Your task to perform on an android device: Go to CNN.com Image 0: 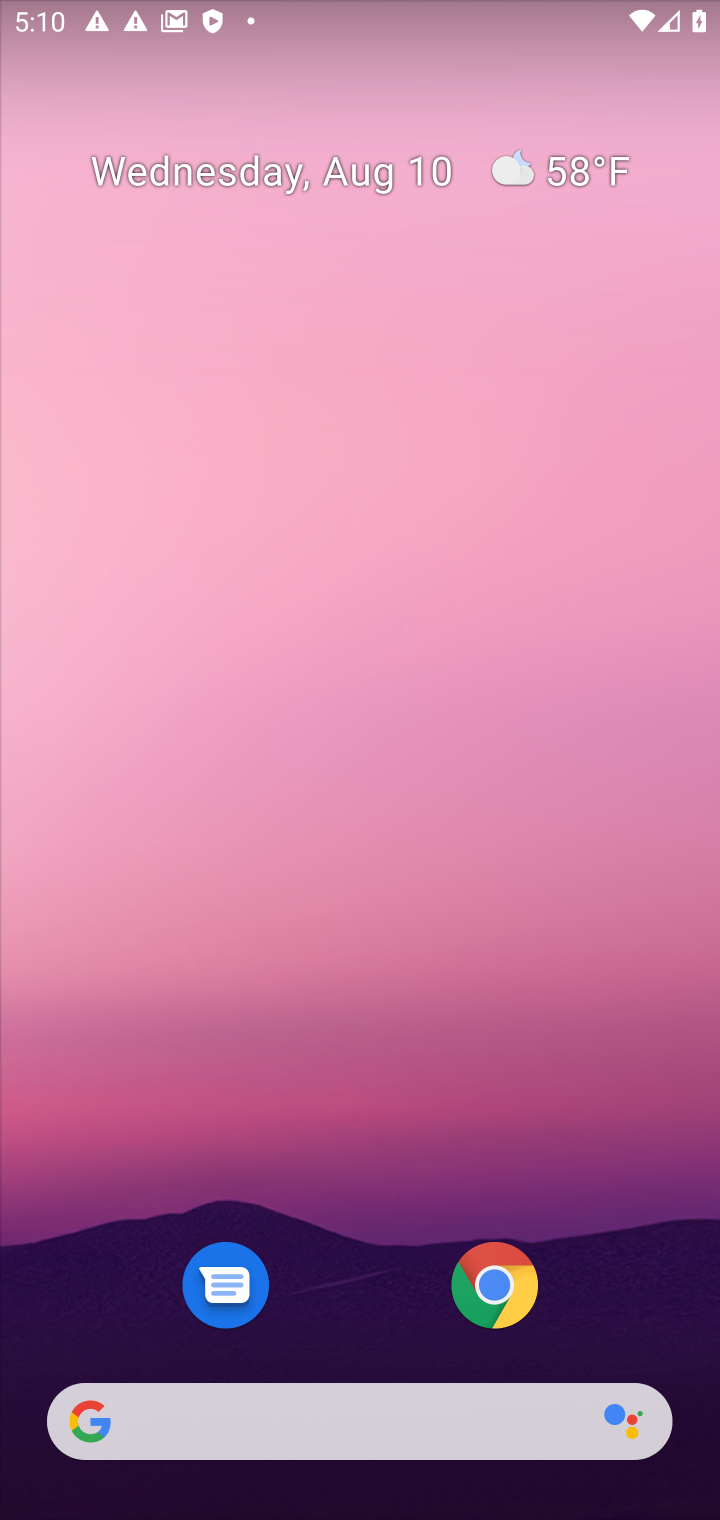
Step 0: press home button
Your task to perform on an android device: Go to CNN.com Image 1: 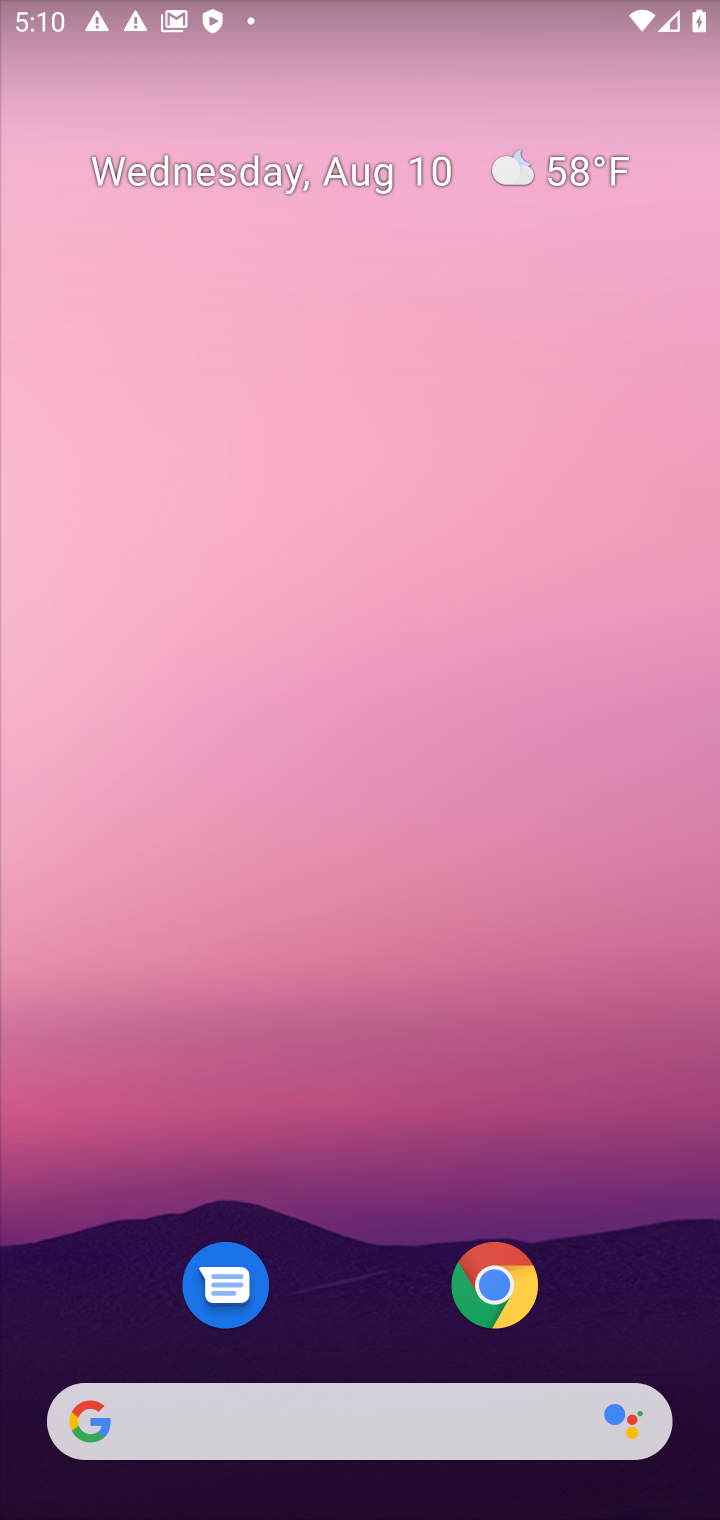
Step 1: click (504, 1284)
Your task to perform on an android device: Go to CNN.com Image 2: 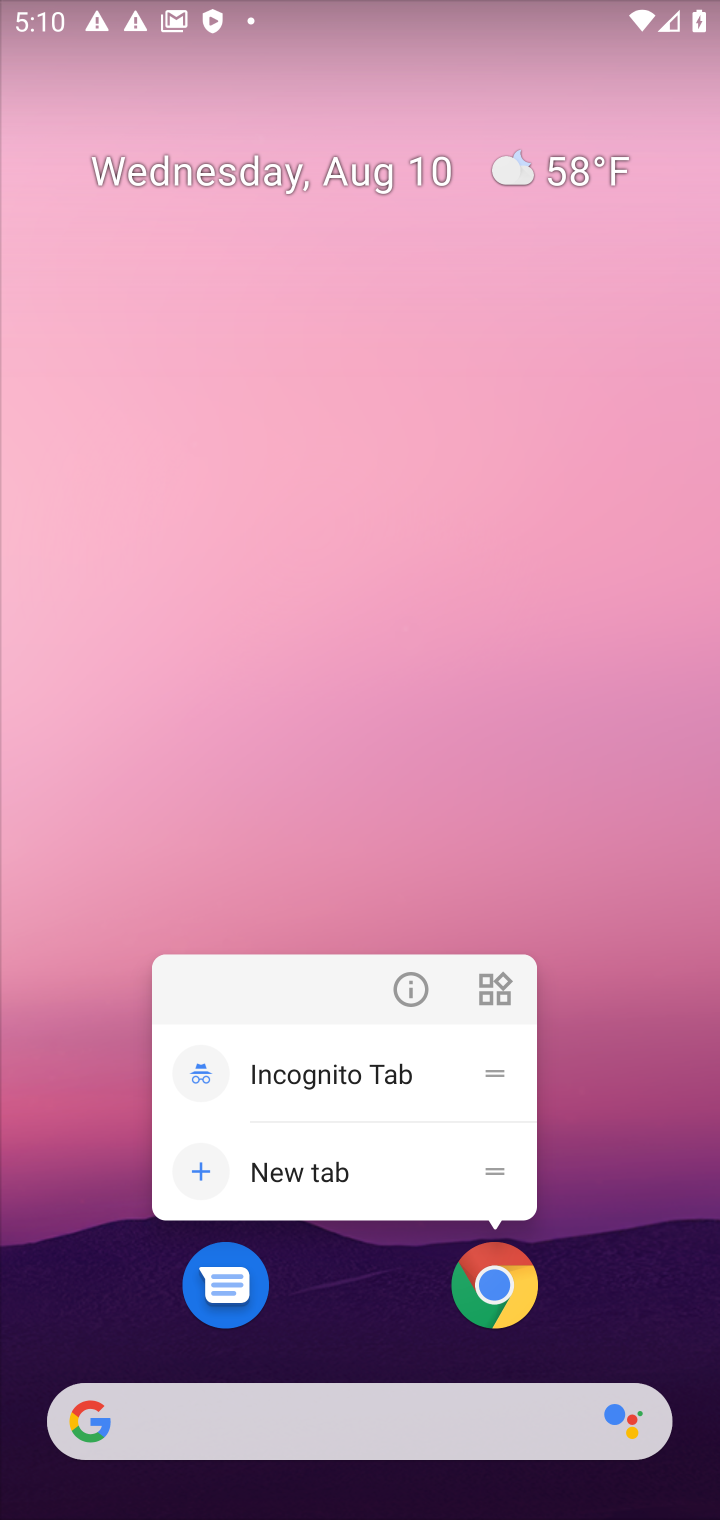
Step 2: click (498, 1284)
Your task to perform on an android device: Go to CNN.com Image 3: 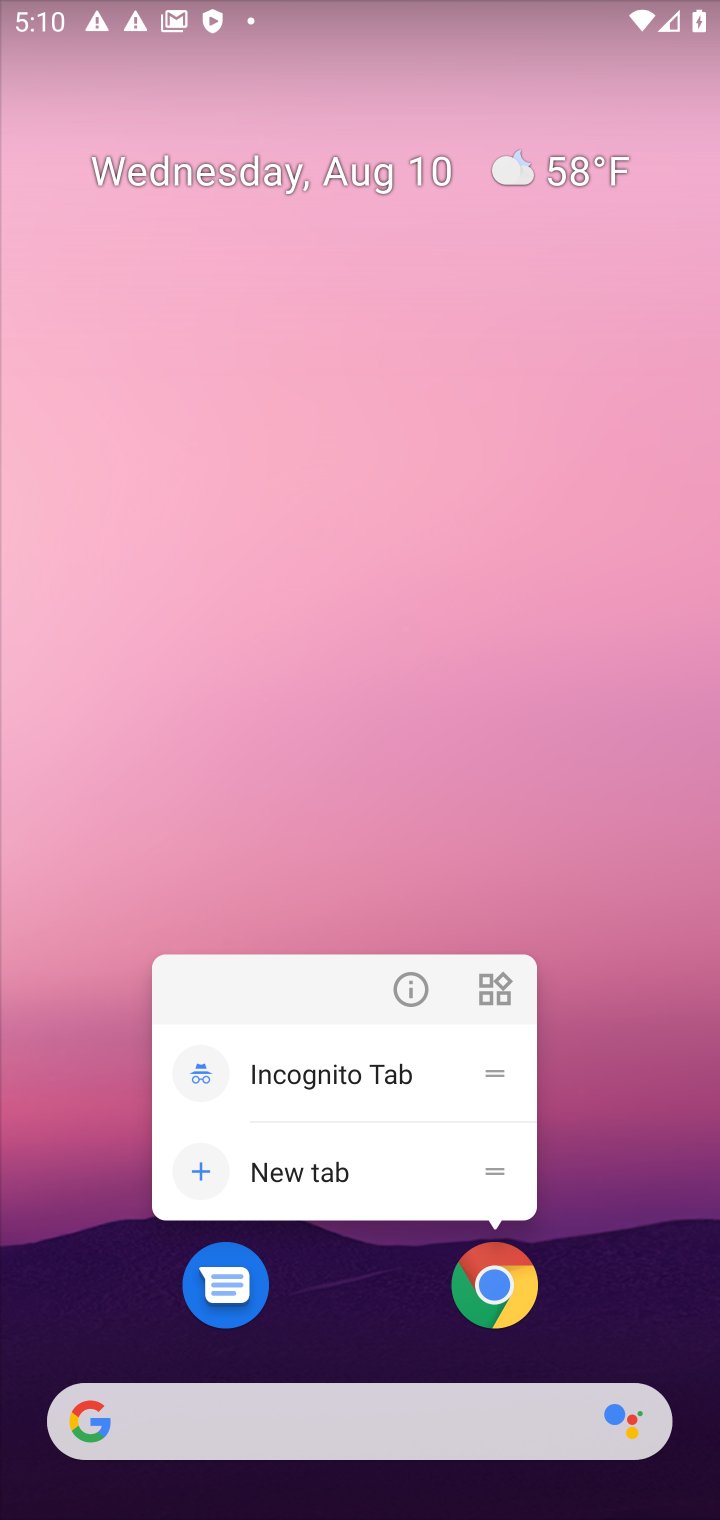
Step 3: click (498, 1284)
Your task to perform on an android device: Go to CNN.com Image 4: 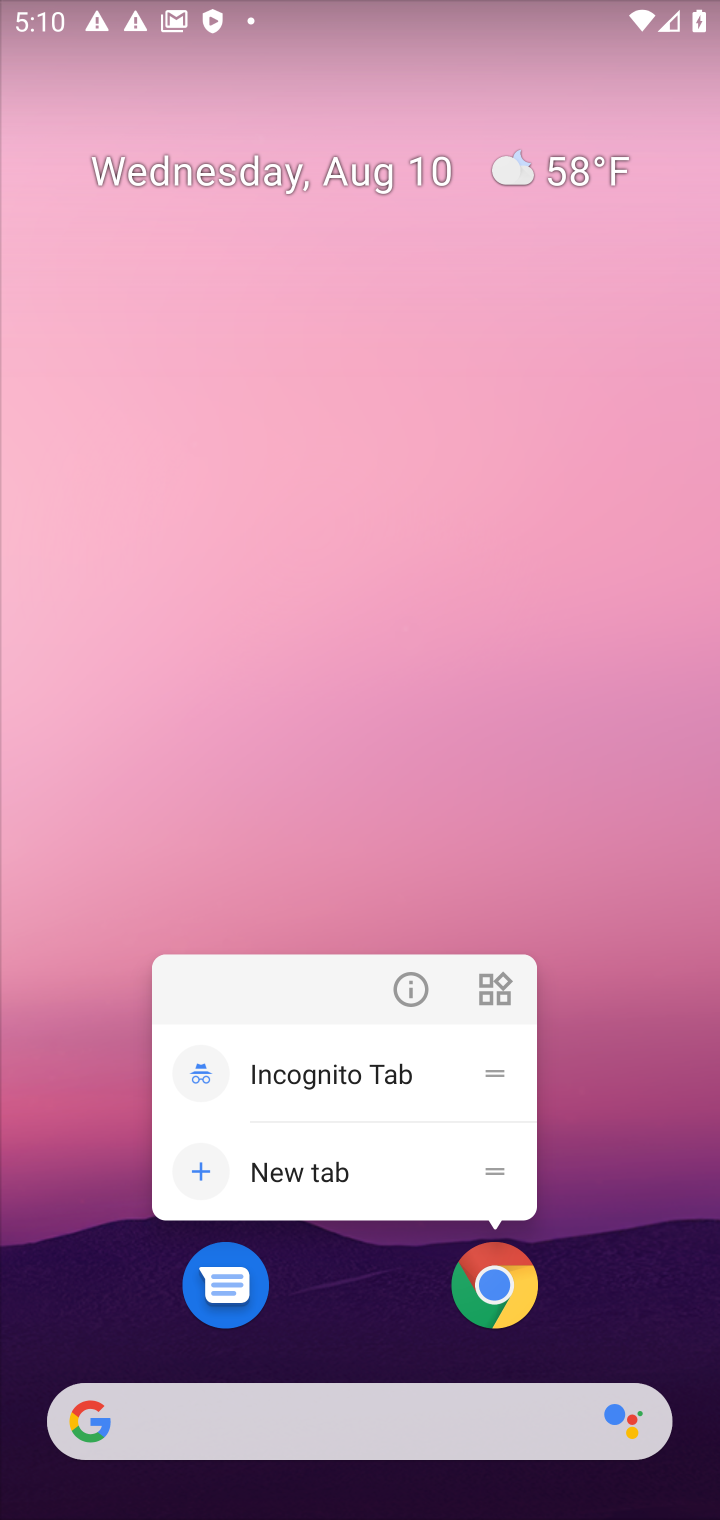
Step 4: click (460, 1281)
Your task to perform on an android device: Go to CNN.com Image 5: 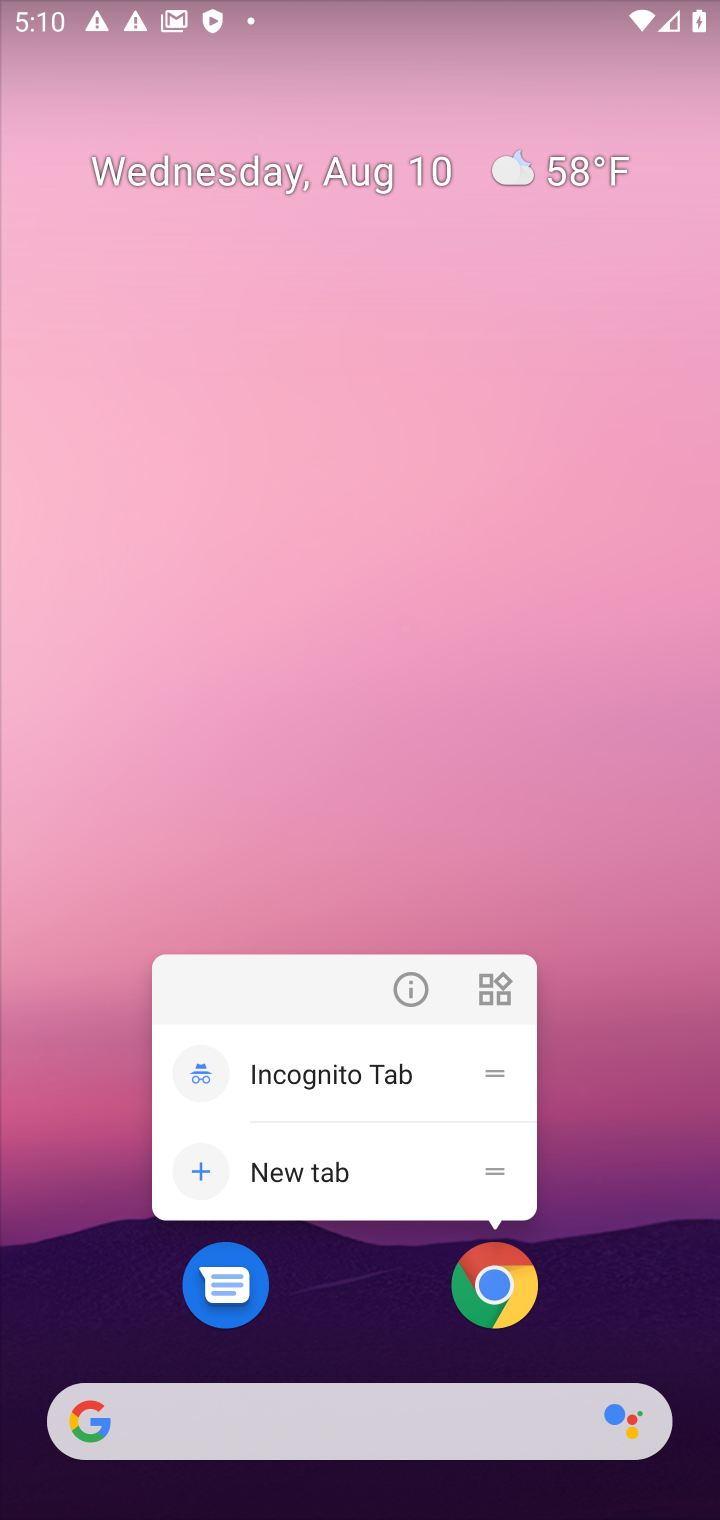
Step 5: click (460, 1281)
Your task to perform on an android device: Go to CNN.com Image 6: 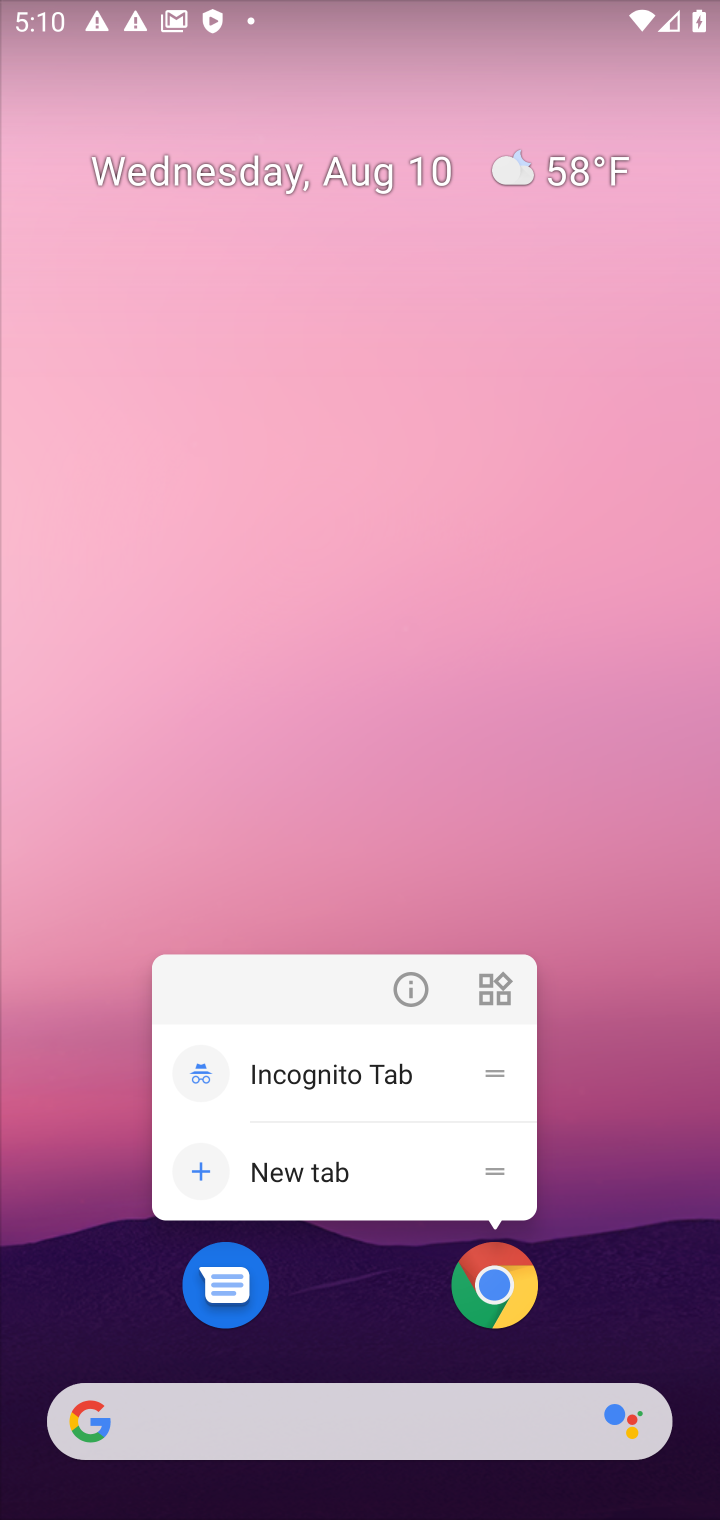
Step 6: click (493, 1281)
Your task to perform on an android device: Go to CNN.com Image 7: 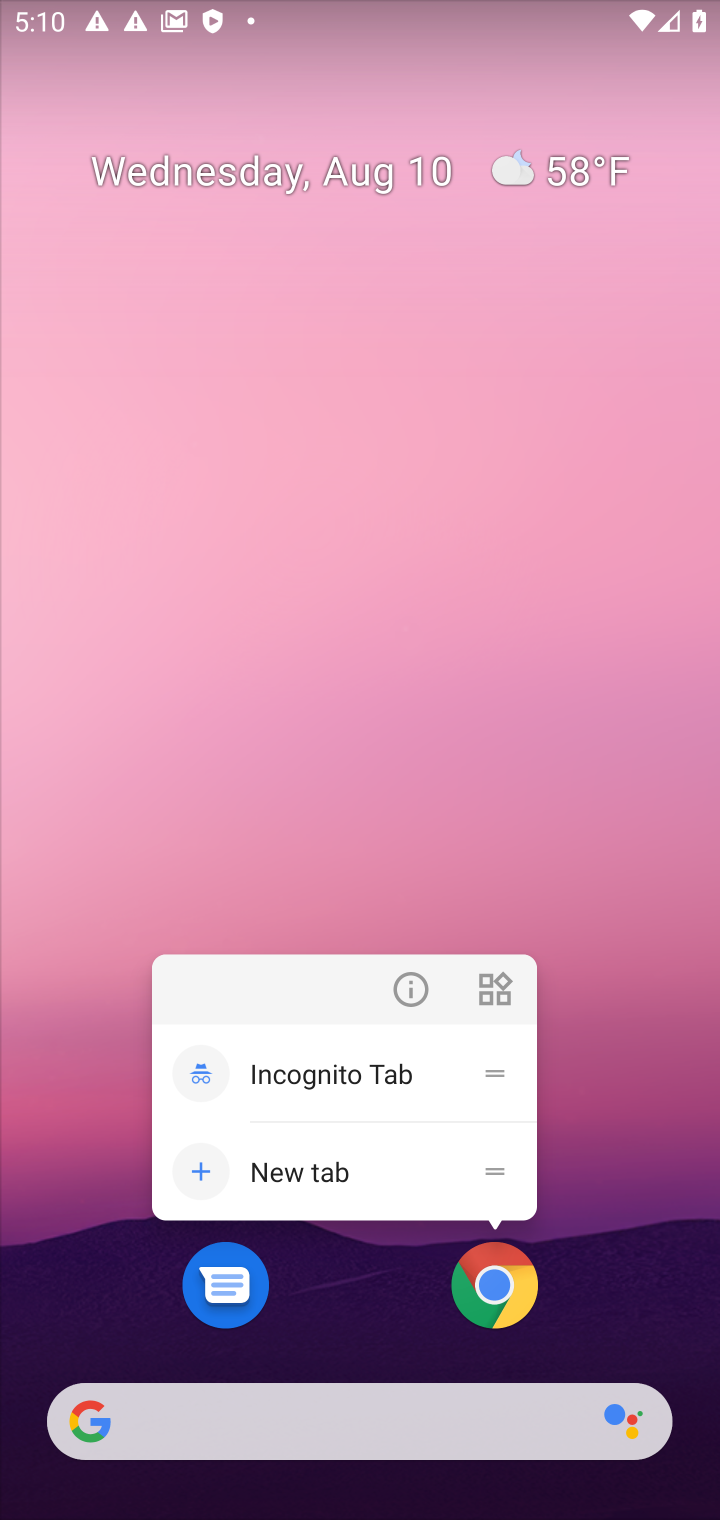
Step 7: click (493, 1281)
Your task to perform on an android device: Go to CNN.com Image 8: 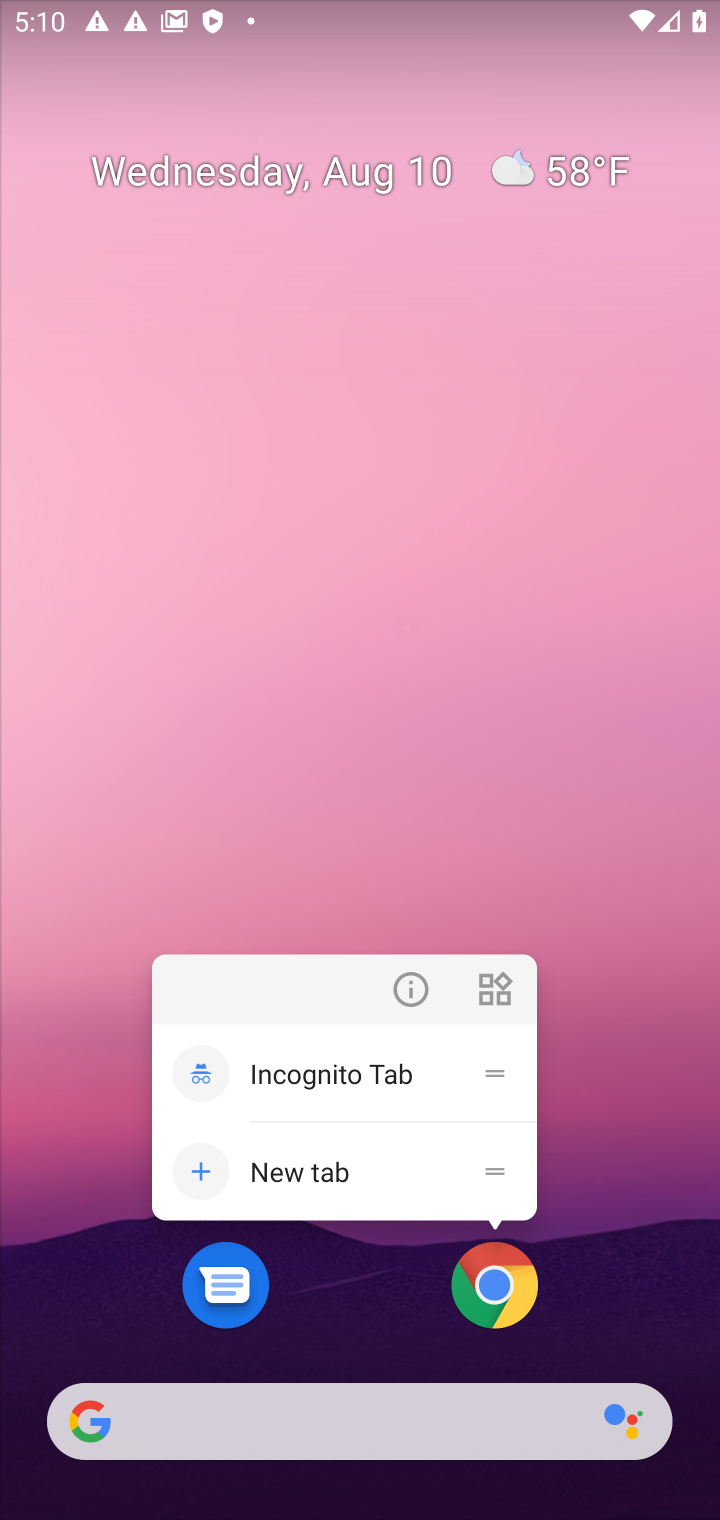
Step 8: click (493, 1281)
Your task to perform on an android device: Go to CNN.com Image 9: 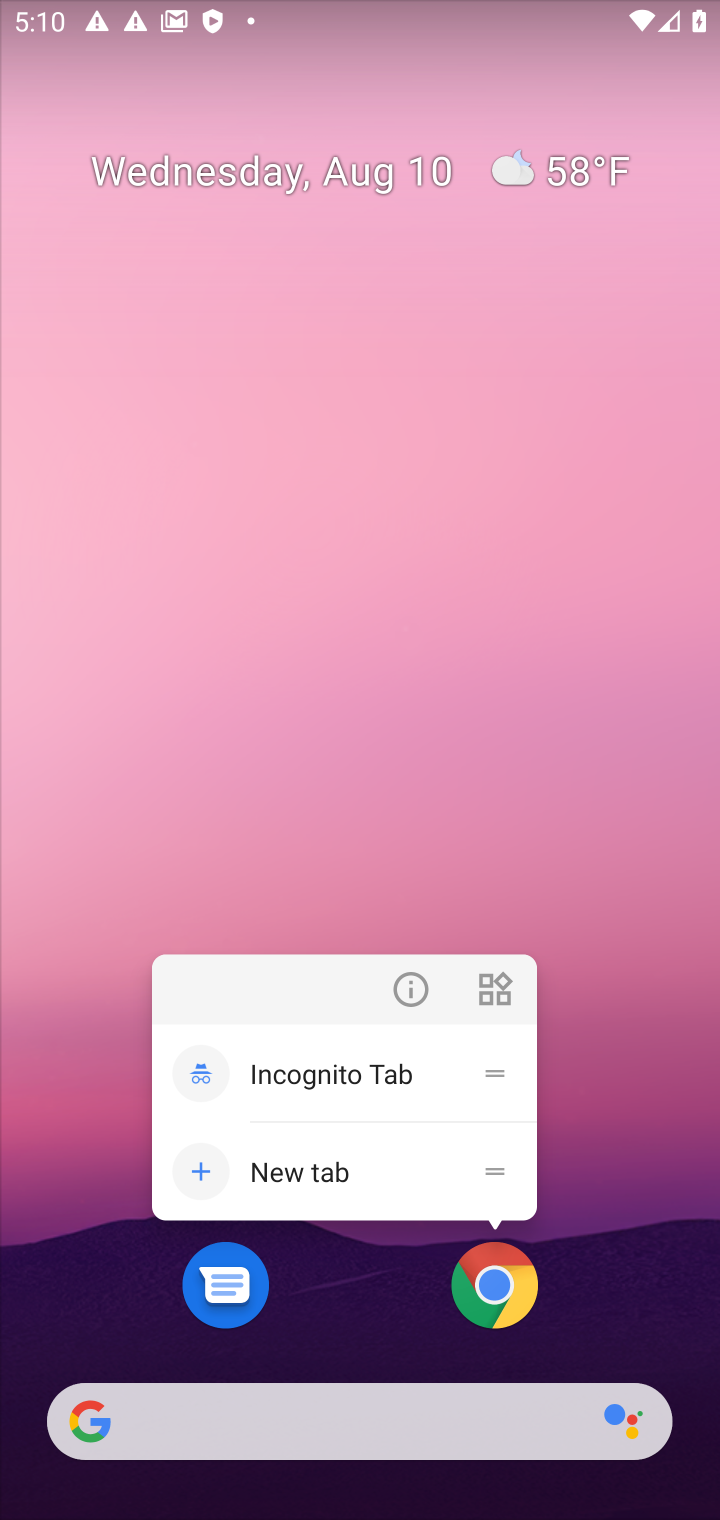
Step 9: click (493, 1281)
Your task to perform on an android device: Go to CNN.com Image 10: 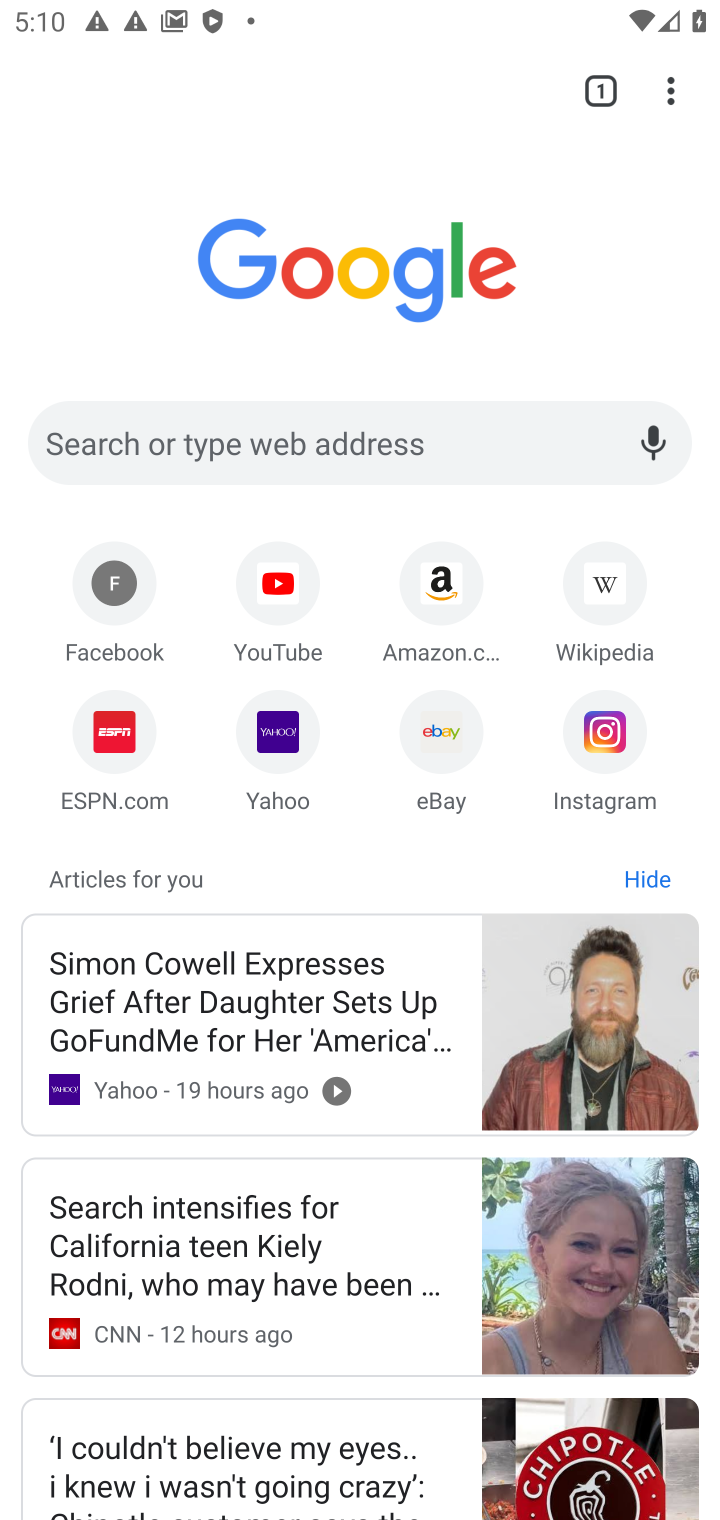
Step 10: click (234, 442)
Your task to perform on an android device: Go to CNN.com Image 11: 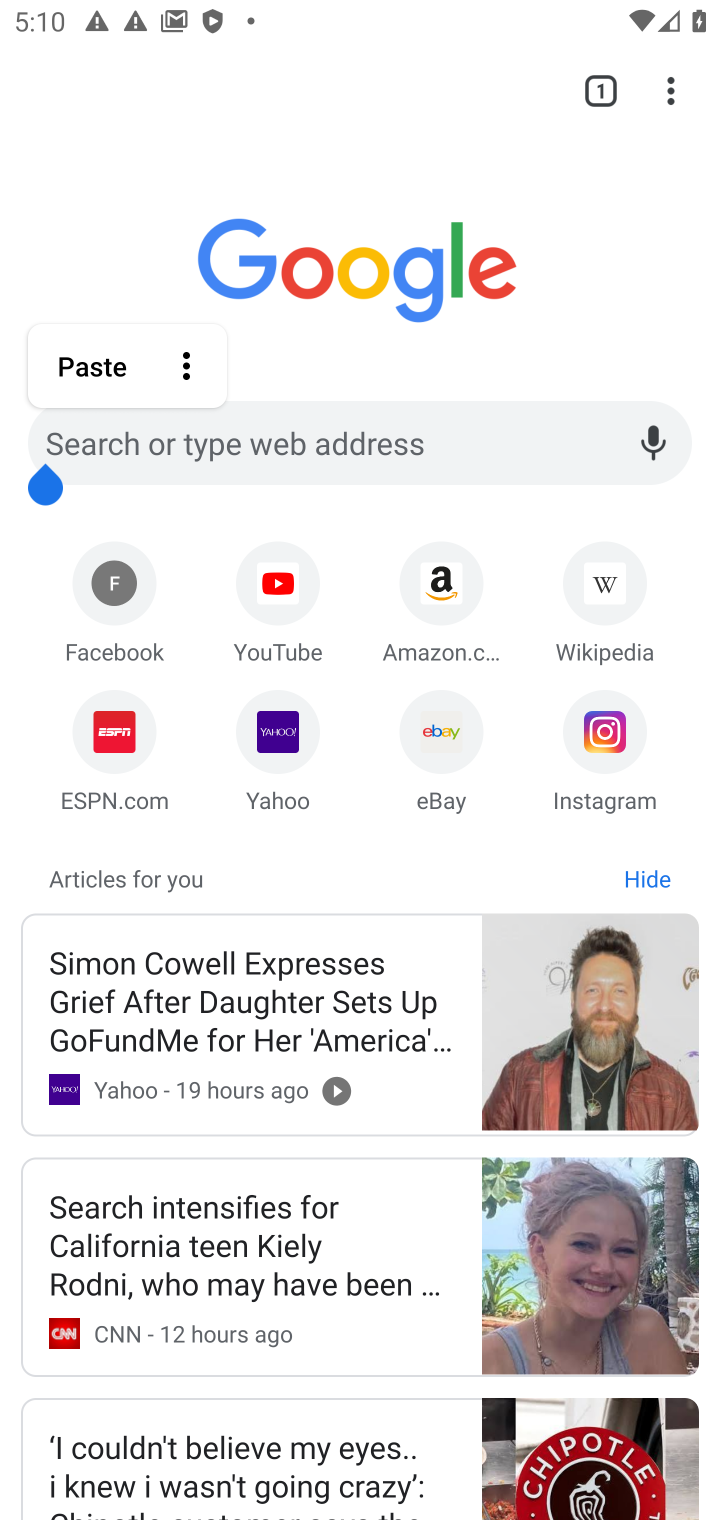
Step 11: click (322, 438)
Your task to perform on an android device: Go to CNN.com Image 12: 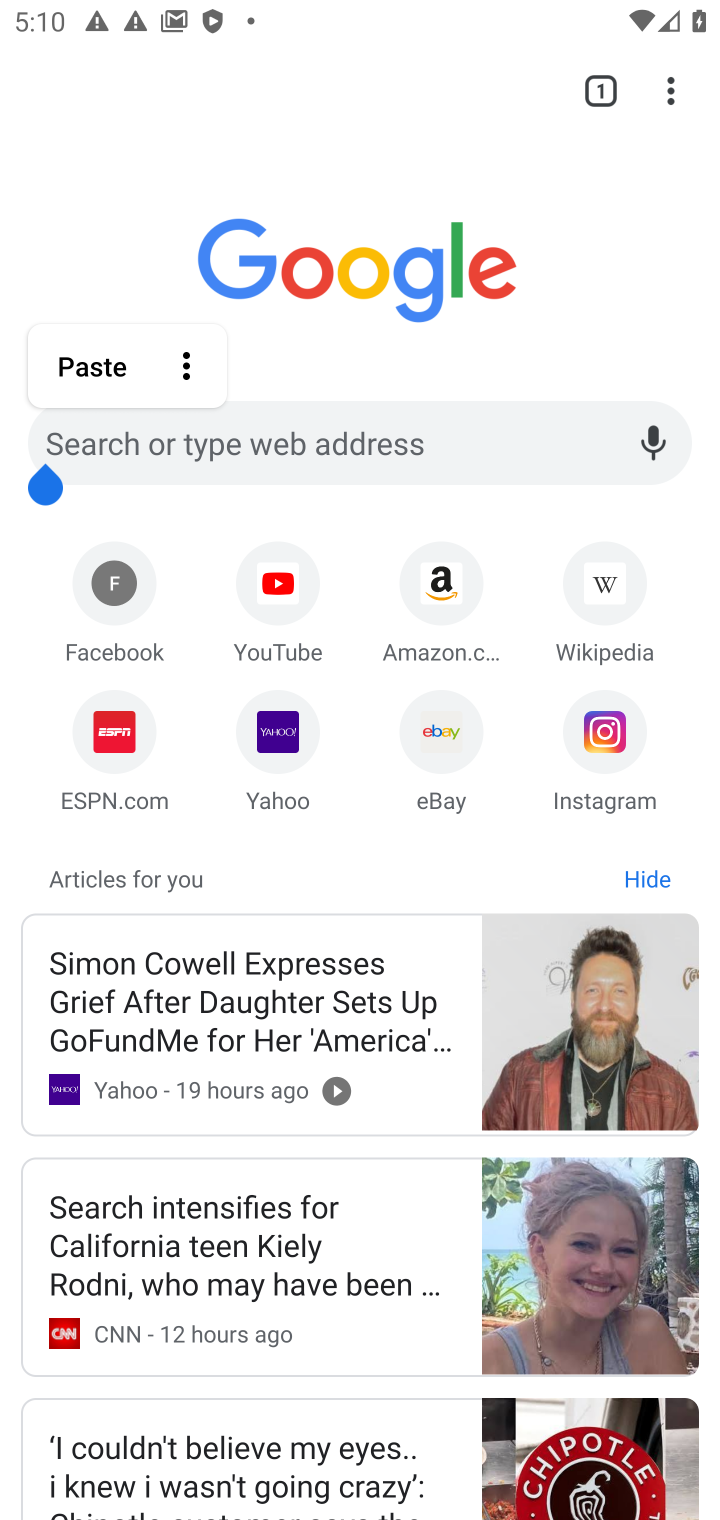
Step 12: click (443, 451)
Your task to perform on an android device: Go to CNN.com Image 13: 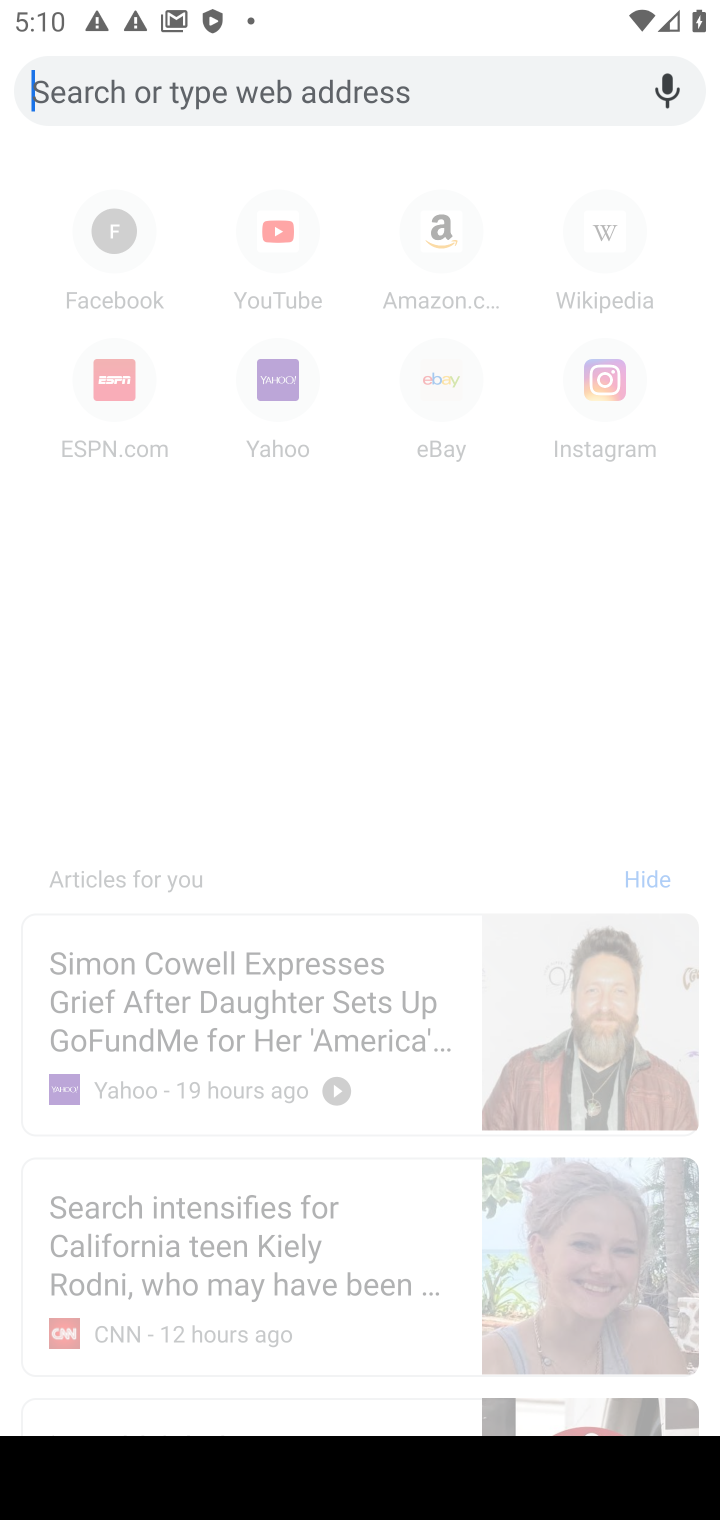
Step 13: type "CNN.com"
Your task to perform on an android device: Go to CNN.com Image 14: 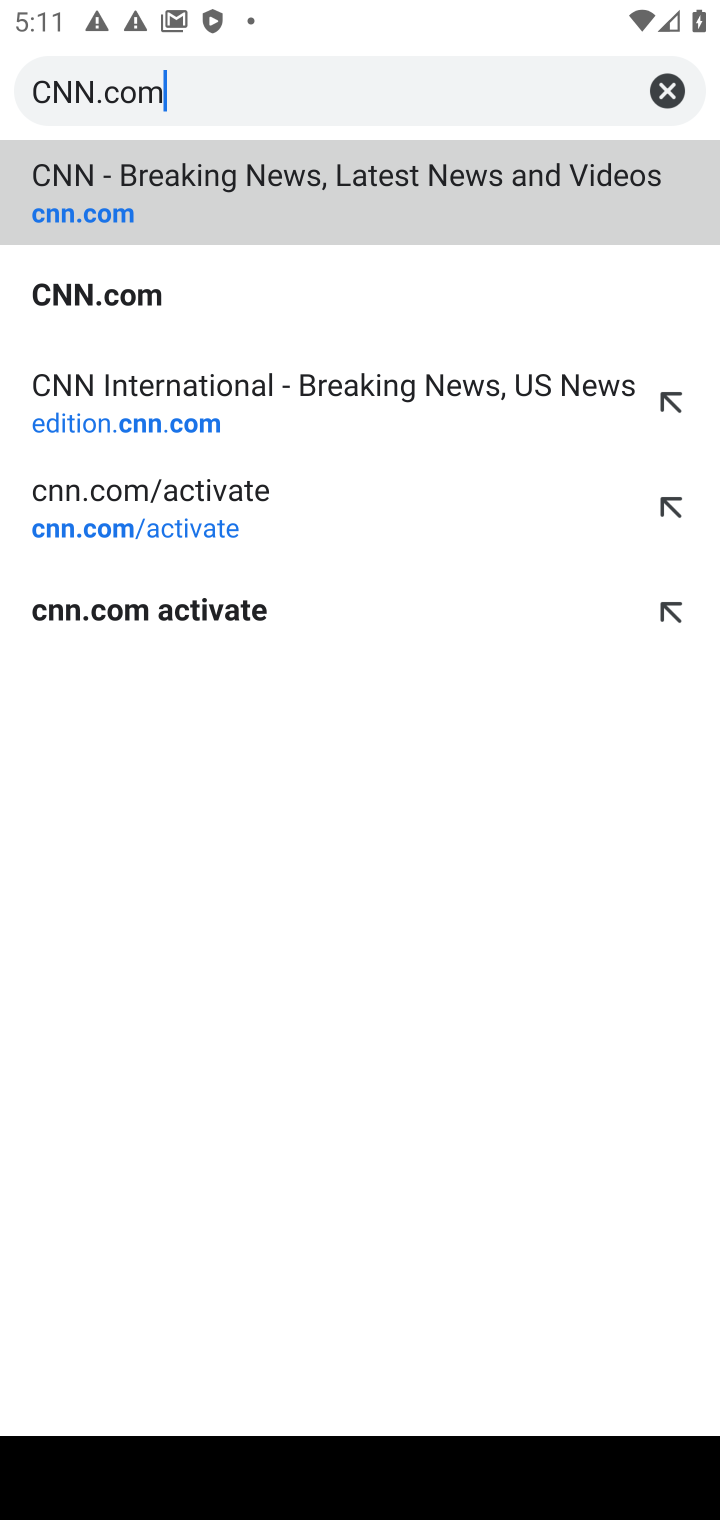
Step 14: type ""
Your task to perform on an android device: Go to CNN.com Image 15: 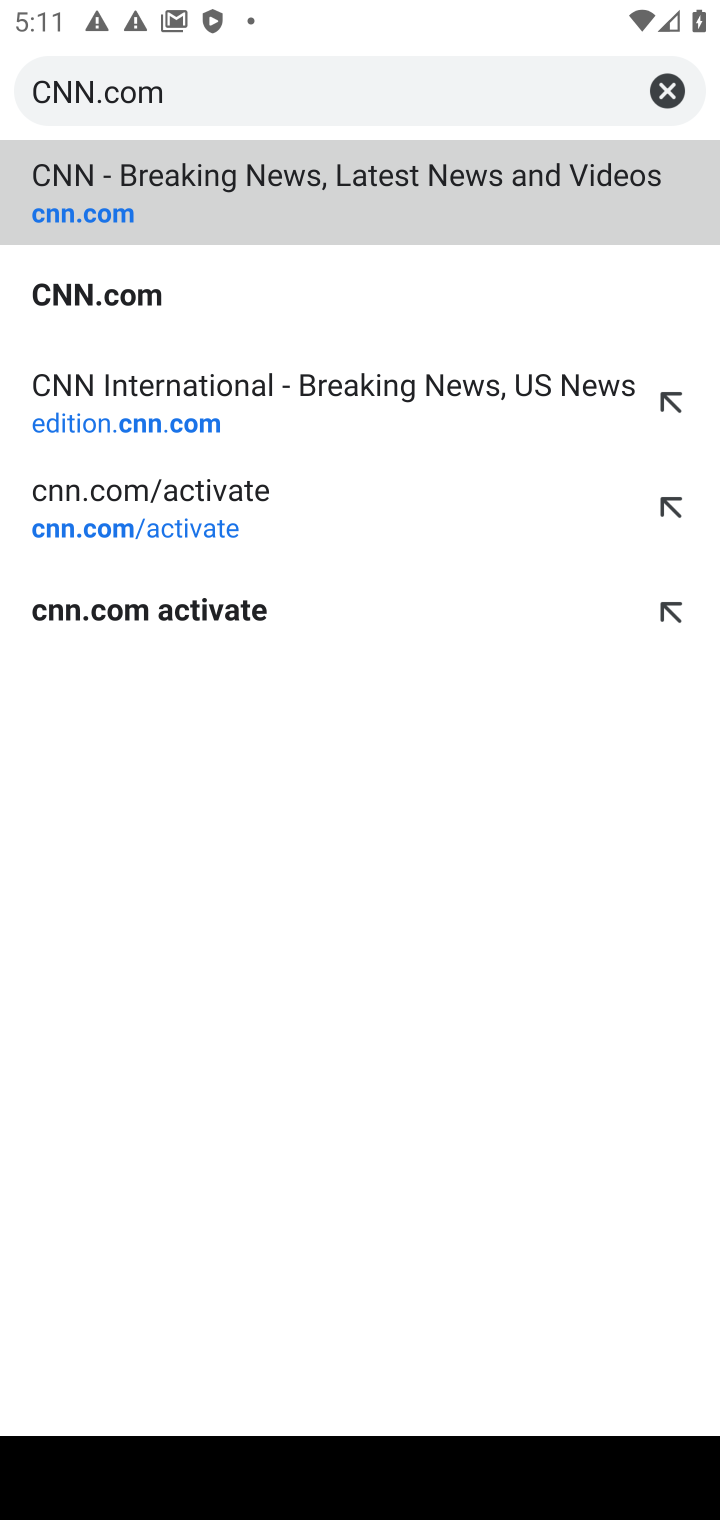
Step 15: click (69, 228)
Your task to perform on an android device: Go to CNN.com Image 16: 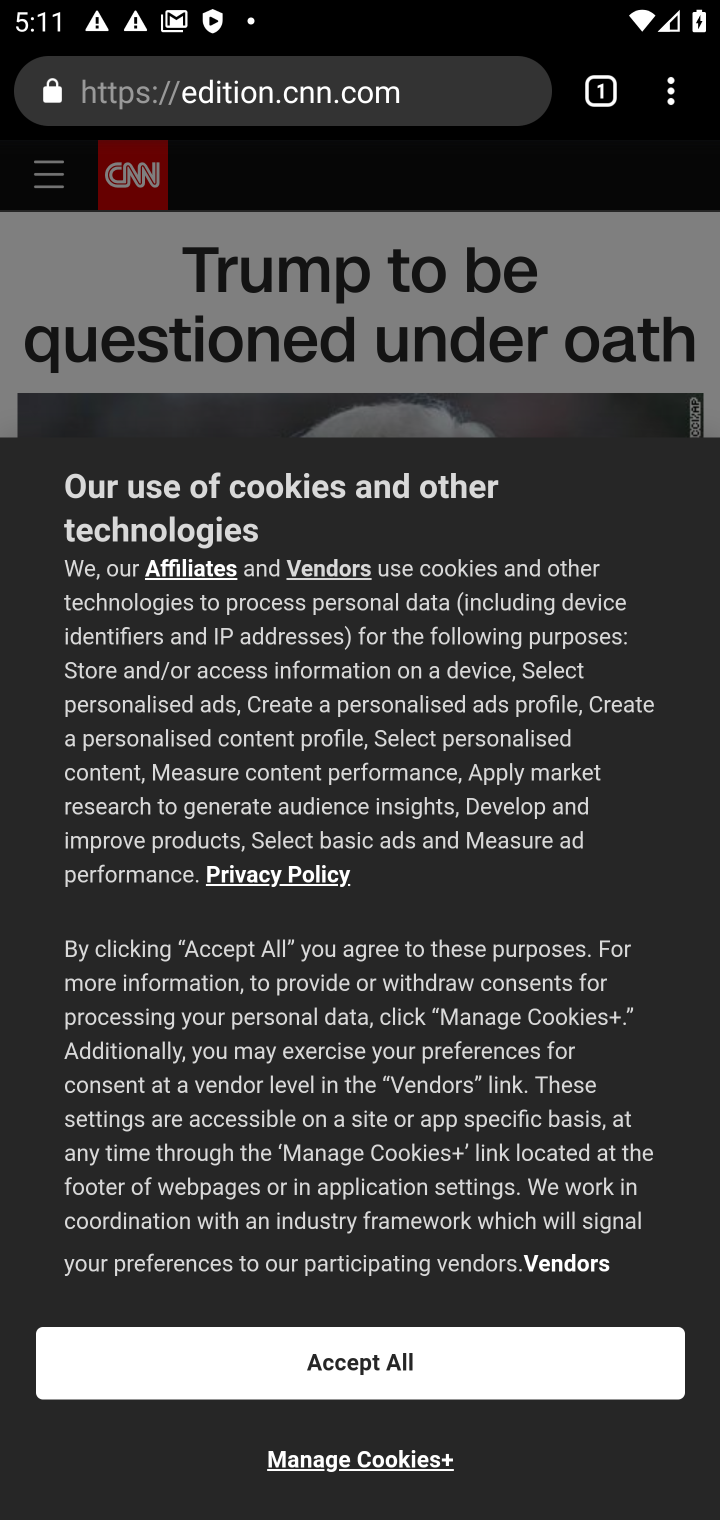
Step 16: task complete